Your task to perform on an android device: toggle improve location accuracy Image 0: 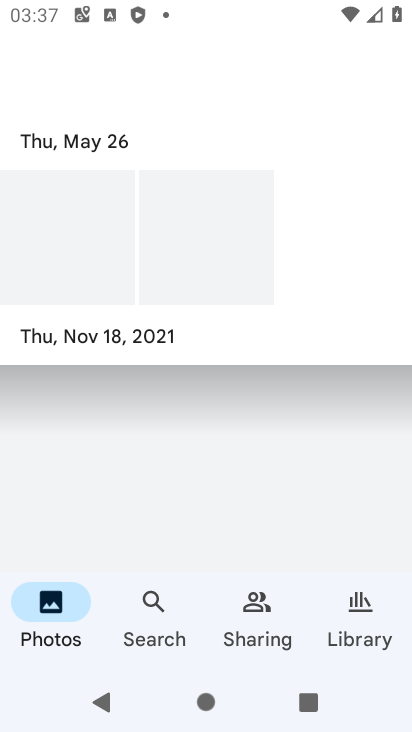
Step 0: click (252, 537)
Your task to perform on an android device: toggle improve location accuracy Image 1: 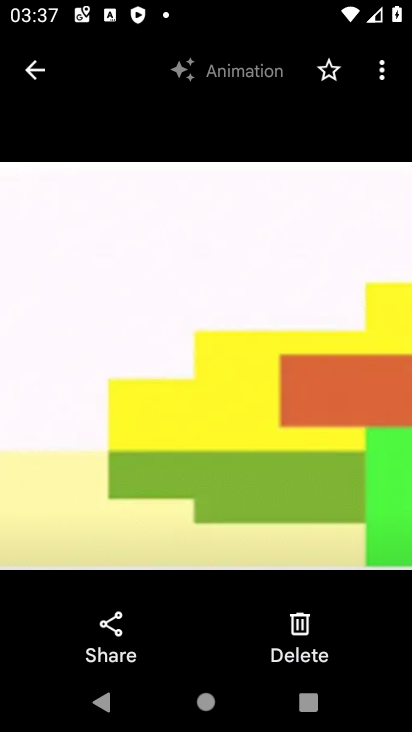
Step 1: press home button
Your task to perform on an android device: toggle improve location accuracy Image 2: 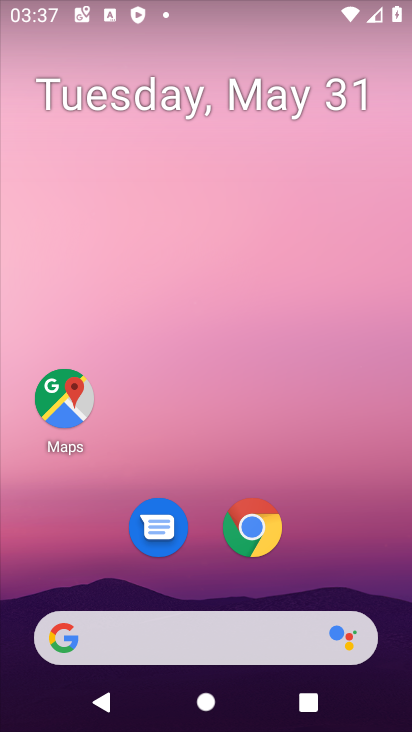
Step 2: drag from (387, 621) to (295, 100)
Your task to perform on an android device: toggle improve location accuracy Image 3: 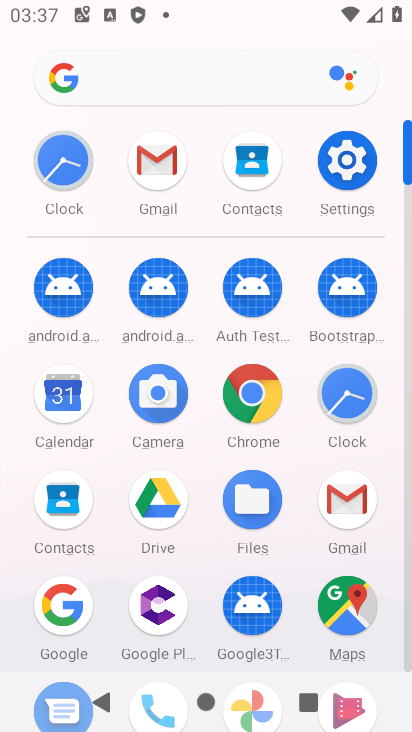
Step 3: click (410, 653)
Your task to perform on an android device: toggle improve location accuracy Image 4: 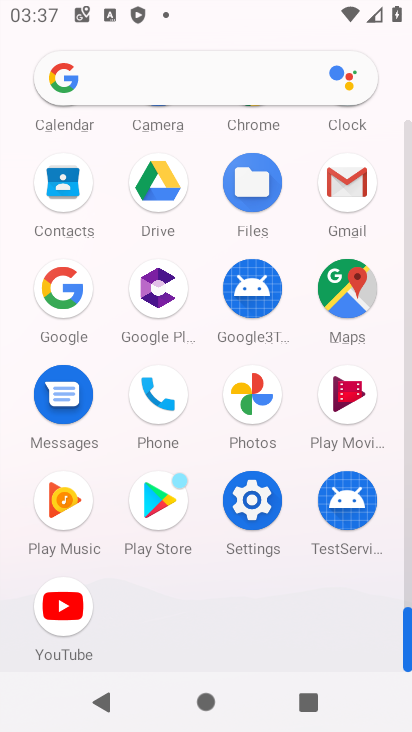
Step 4: click (252, 498)
Your task to perform on an android device: toggle improve location accuracy Image 5: 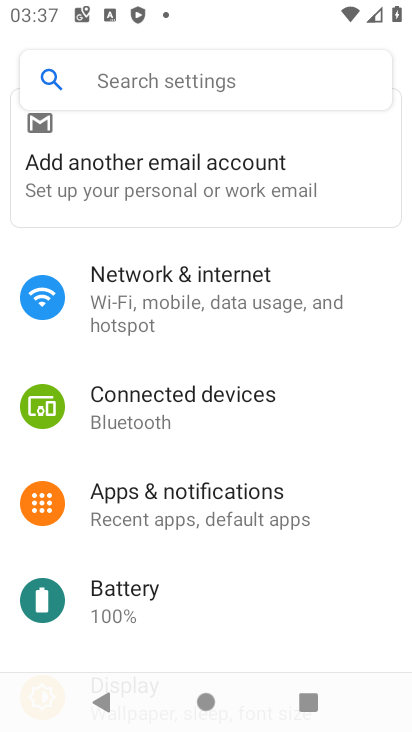
Step 5: drag from (260, 599) to (276, 132)
Your task to perform on an android device: toggle improve location accuracy Image 6: 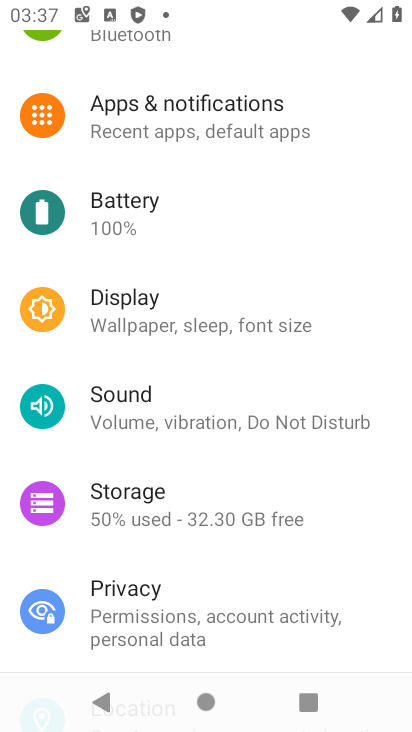
Step 6: drag from (260, 617) to (297, 141)
Your task to perform on an android device: toggle improve location accuracy Image 7: 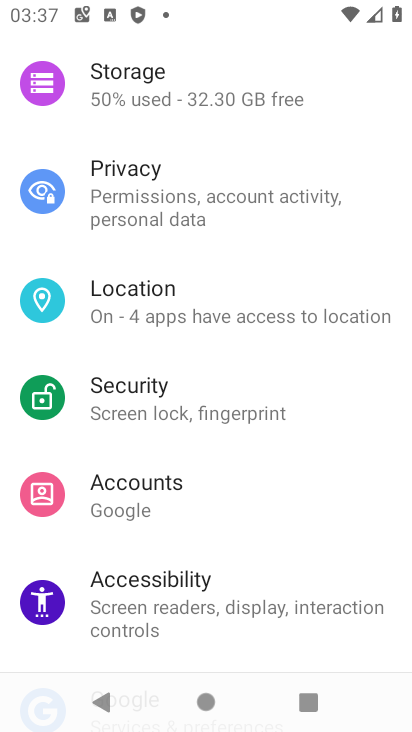
Step 7: click (132, 303)
Your task to perform on an android device: toggle improve location accuracy Image 8: 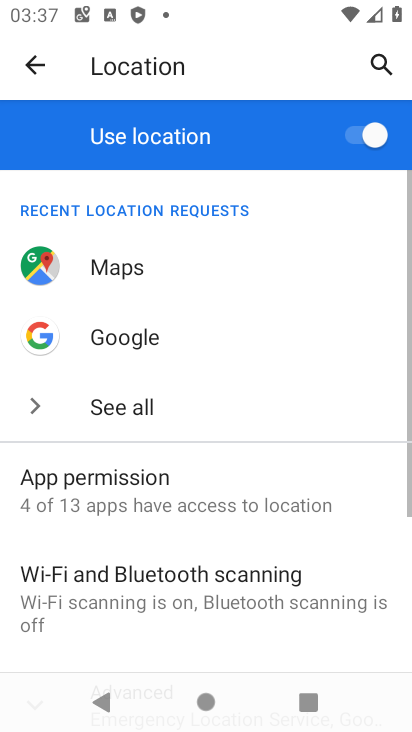
Step 8: drag from (256, 560) to (244, 96)
Your task to perform on an android device: toggle improve location accuracy Image 9: 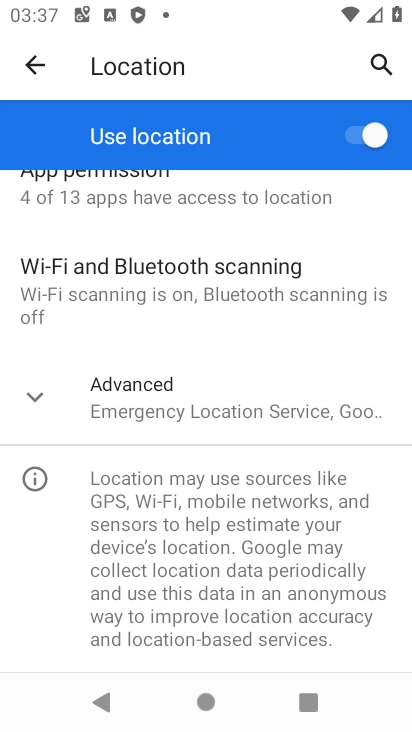
Step 9: click (30, 400)
Your task to perform on an android device: toggle improve location accuracy Image 10: 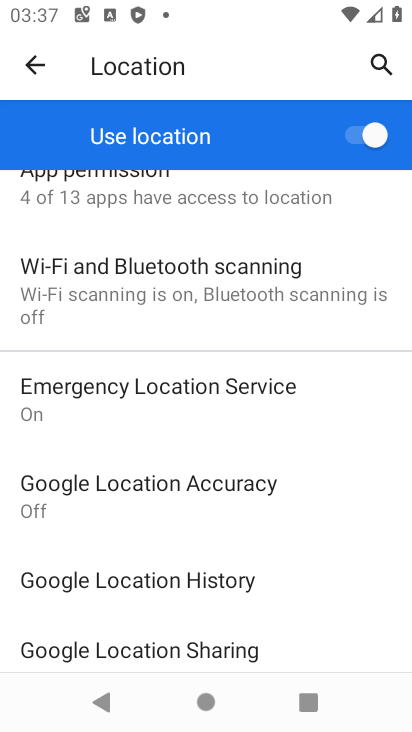
Step 10: click (81, 478)
Your task to perform on an android device: toggle improve location accuracy Image 11: 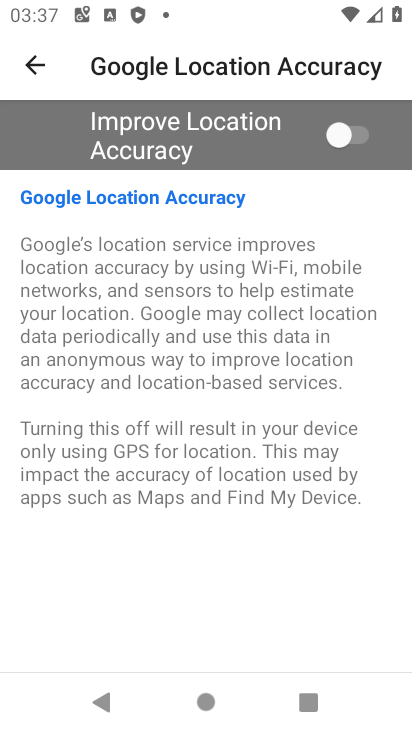
Step 11: click (356, 138)
Your task to perform on an android device: toggle improve location accuracy Image 12: 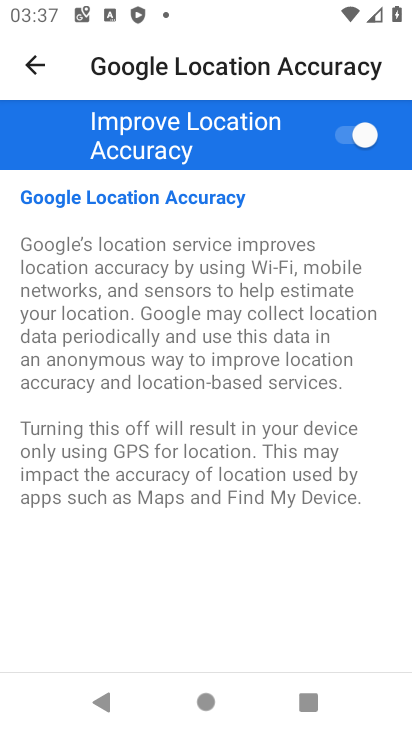
Step 12: task complete